Your task to perform on an android device: Clear the shopping cart on costco. Image 0: 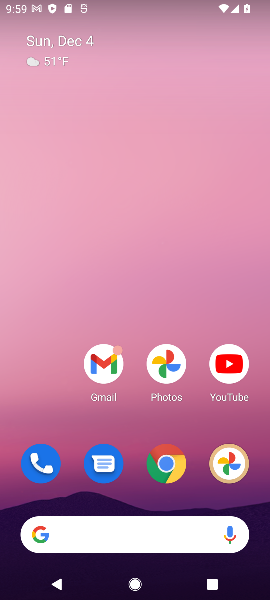
Step 0: click (164, 536)
Your task to perform on an android device: Clear the shopping cart on costco. Image 1: 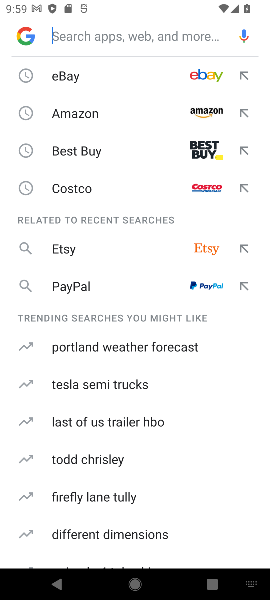
Step 1: click (116, 191)
Your task to perform on an android device: Clear the shopping cart on costco. Image 2: 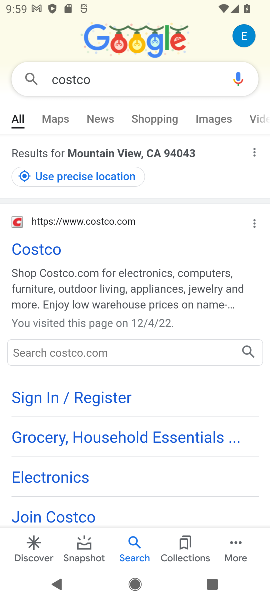
Step 2: click (40, 252)
Your task to perform on an android device: Clear the shopping cart on costco. Image 3: 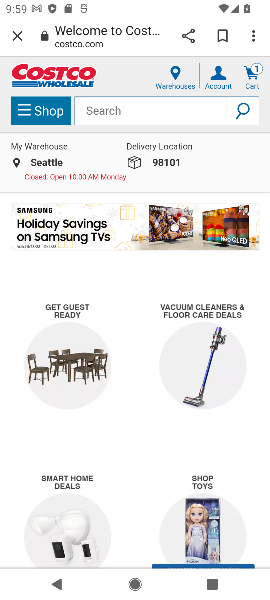
Step 3: task complete